Your task to perform on an android device: add a contact Image 0: 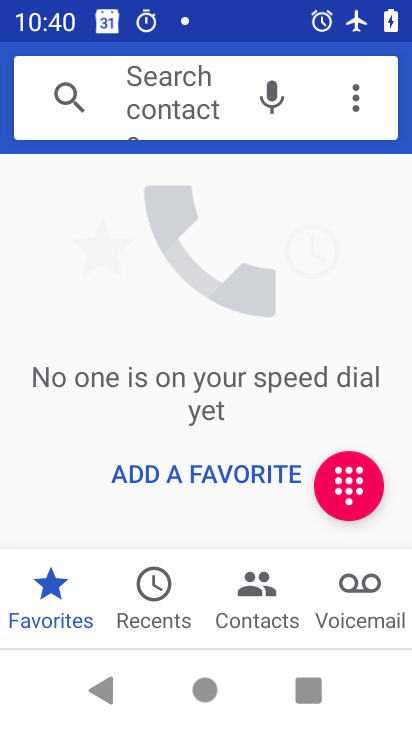
Step 0: click (248, 613)
Your task to perform on an android device: add a contact Image 1: 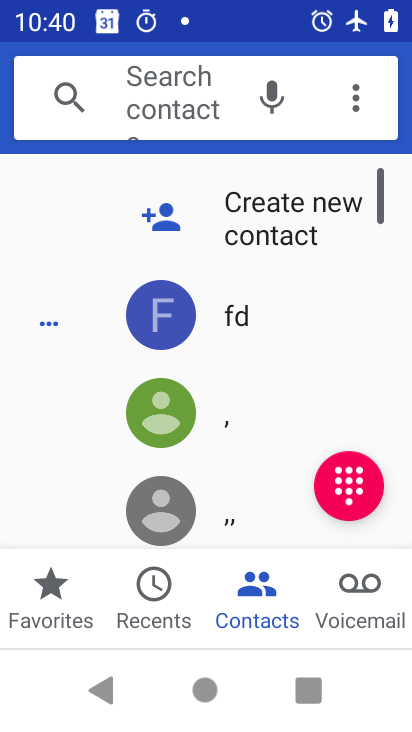
Step 1: click (221, 216)
Your task to perform on an android device: add a contact Image 2: 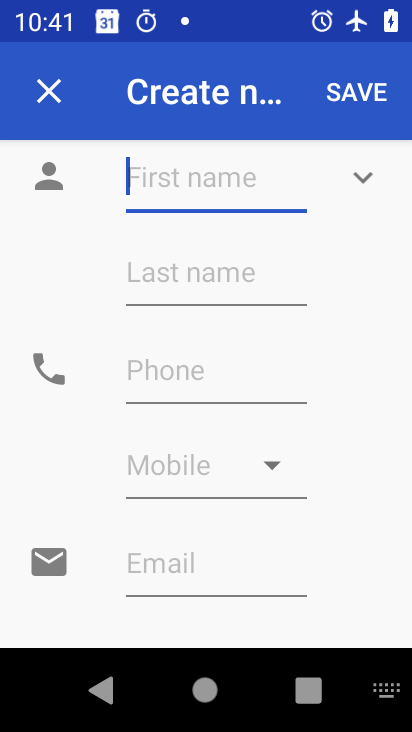
Step 2: type "reteyye"
Your task to perform on an android device: add a contact Image 3: 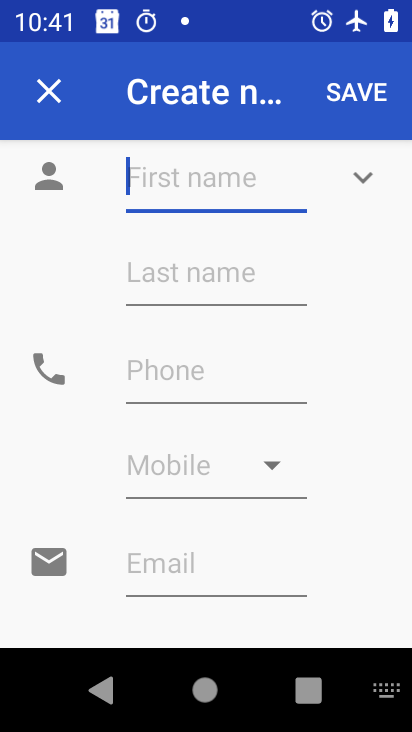
Step 3: click (203, 399)
Your task to perform on an android device: add a contact Image 4: 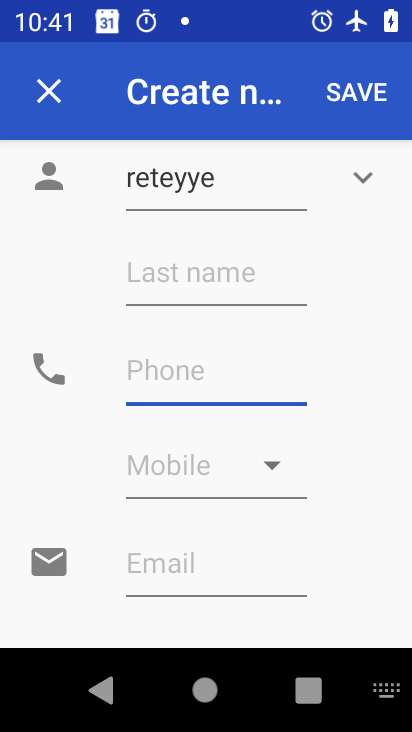
Step 4: type "65263767762"
Your task to perform on an android device: add a contact Image 5: 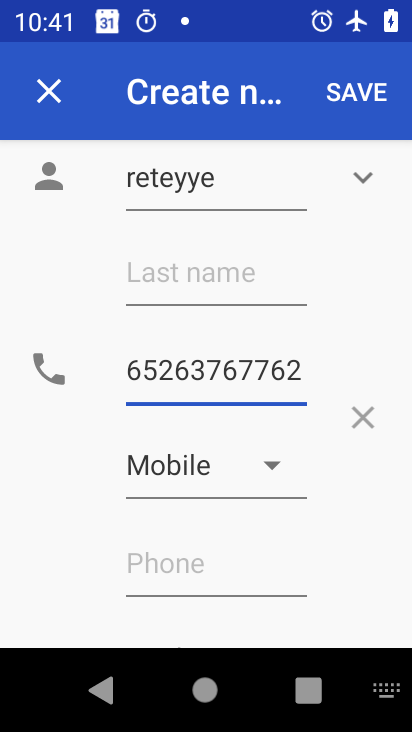
Step 5: click (332, 95)
Your task to perform on an android device: add a contact Image 6: 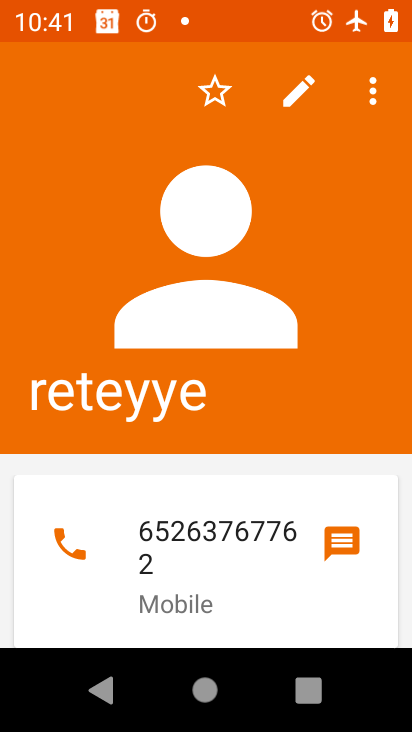
Step 6: task complete